Your task to perform on an android device: Go to battery settings Image 0: 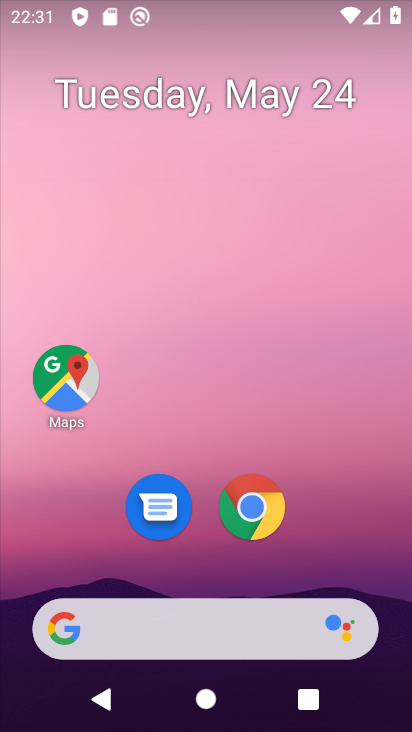
Step 0: drag from (244, 603) to (174, 3)
Your task to perform on an android device: Go to battery settings Image 1: 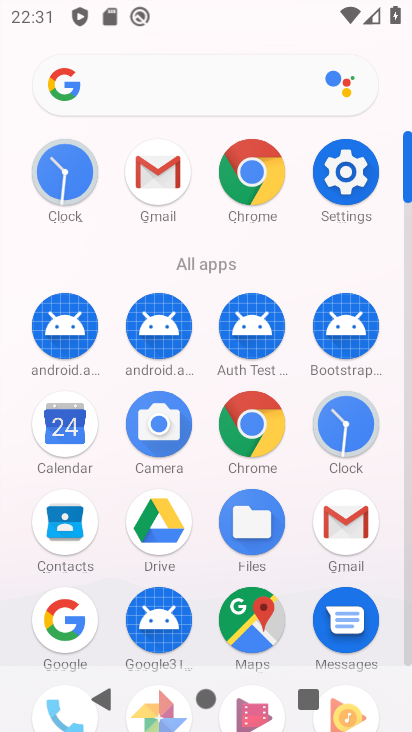
Step 1: click (341, 176)
Your task to perform on an android device: Go to battery settings Image 2: 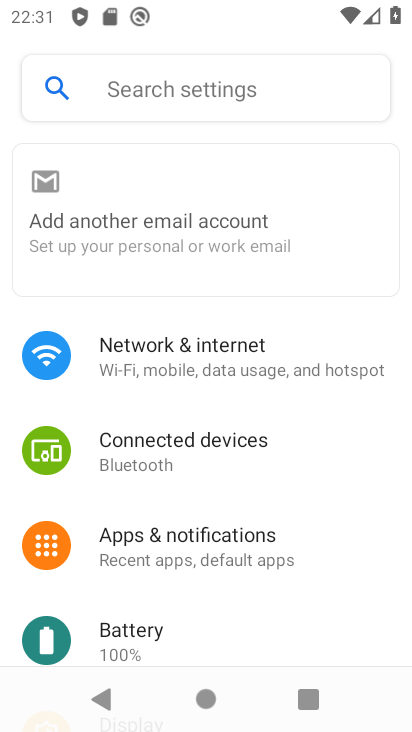
Step 2: click (340, 193)
Your task to perform on an android device: Go to battery settings Image 3: 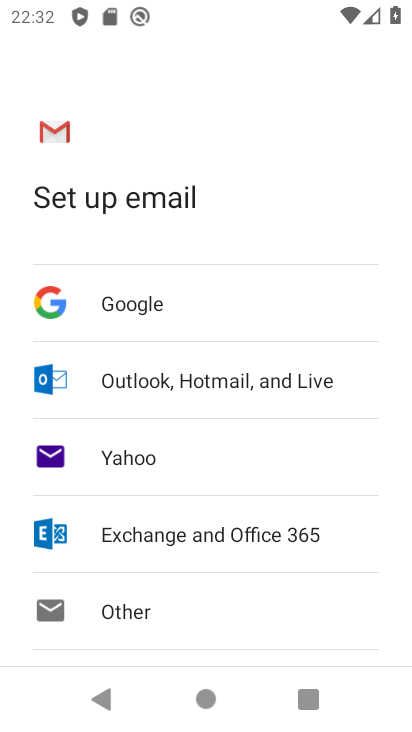
Step 3: drag from (387, 208) to (310, 435)
Your task to perform on an android device: Go to battery settings Image 4: 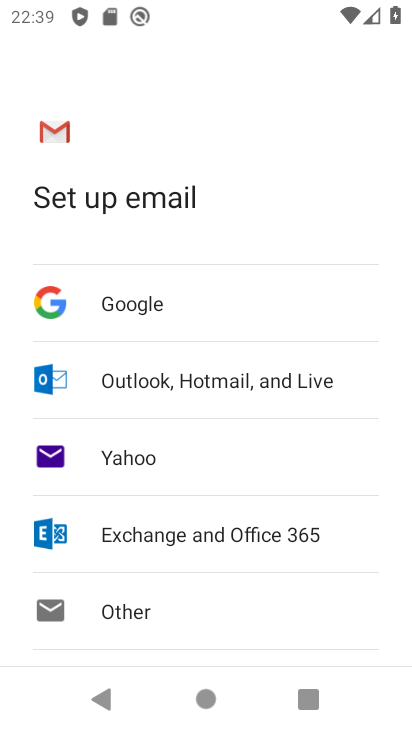
Step 4: press home button
Your task to perform on an android device: Go to battery settings Image 5: 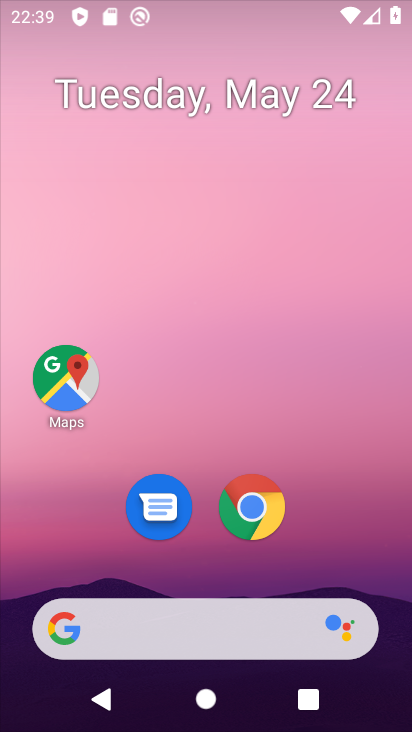
Step 5: drag from (277, 657) to (250, 38)
Your task to perform on an android device: Go to battery settings Image 6: 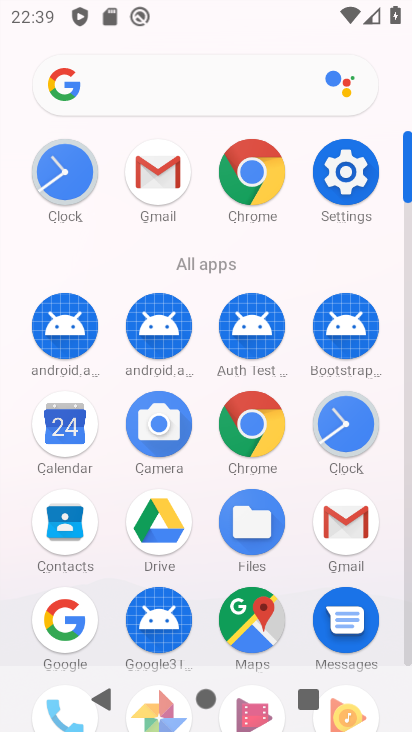
Step 6: click (370, 180)
Your task to perform on an android device: Go to battery settings Image 7: 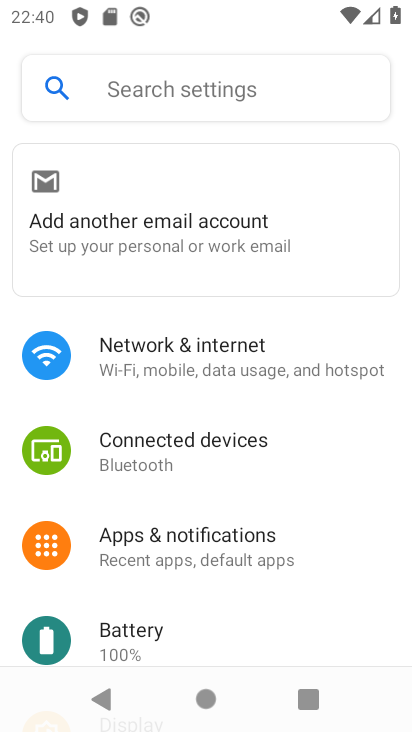
Step 7: click (236, 652)
Your task to perform on an android device: Go to battery settings Image 8: 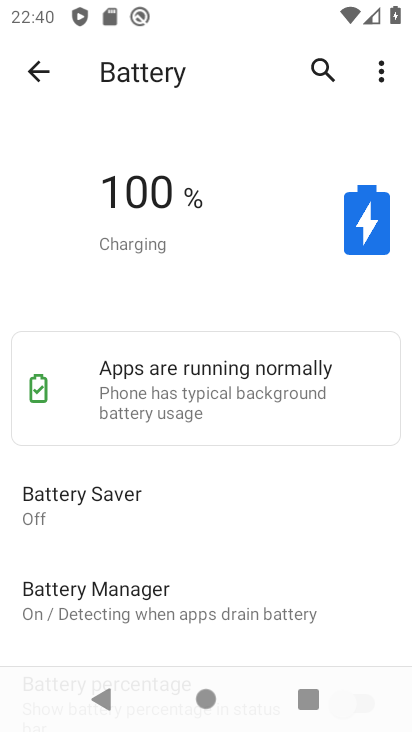
Step 8: task complete